Your task to perform on an android device: turn off smart reply in the gmail app Image 0: 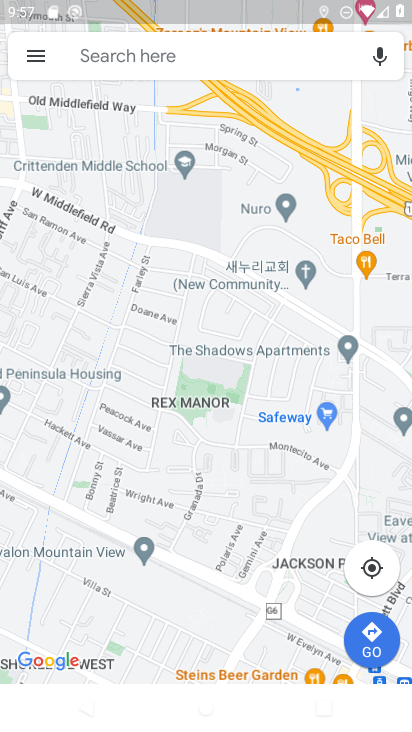
Step 0: press home button
Your task to perform on an android device: turn off smart reply in the gmail app Image 1: 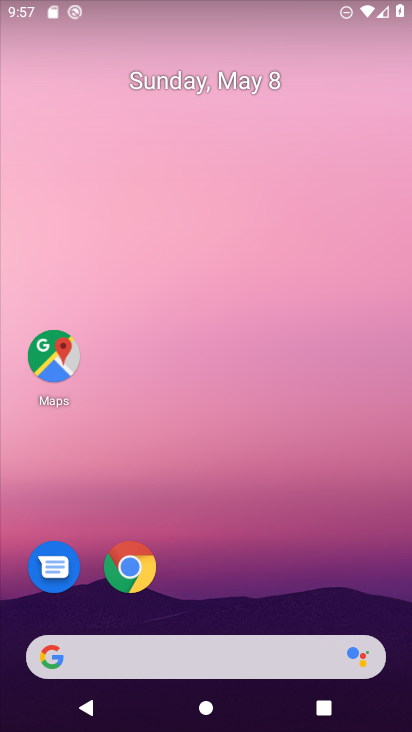
Step 1: drag from (158, 634) to (243, 225)
Your task to perform on an android device: turn off smart reply in the gmail app Image 2: 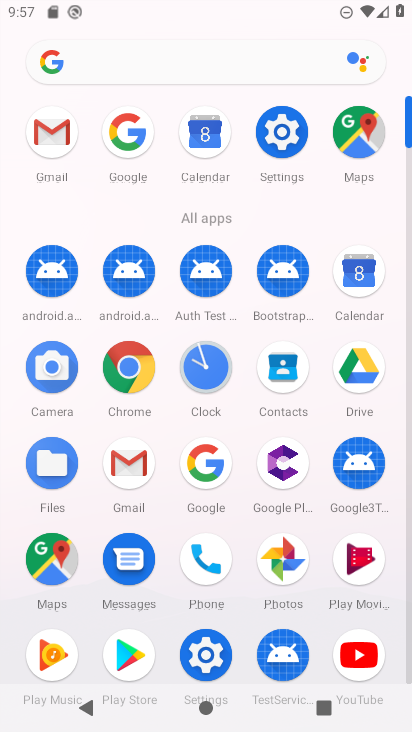
Step 2: click (56, 140)
Your task to perform on an android device: turn off smart reply in the gmail app Image 3: 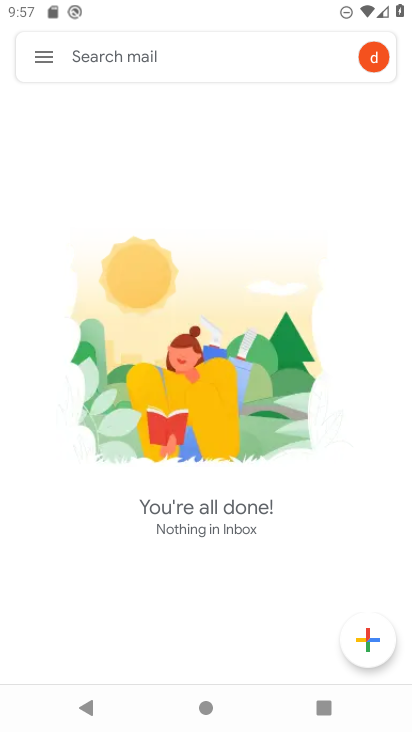
Step 3: click (38, 68)
Your task to perform on an android device: turn off smart reply in the gmail app Image 4: 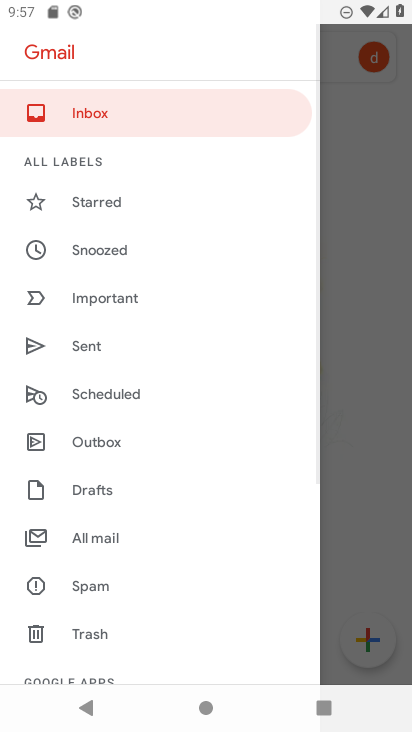
Step 4: drag from (97, 682) to (116, 267)
Your task to perform on an android device: turn off smart reply in the gmail app Image 5: 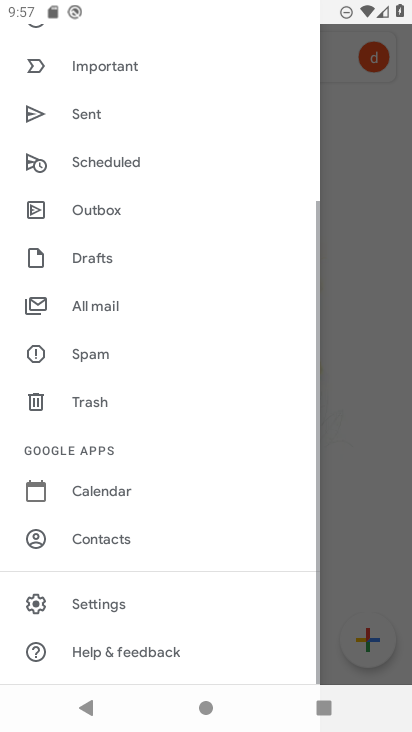
Step 5: click (116, 607)
Your task to perform on an android device: turn off smart reply in the gmail app Image 6: 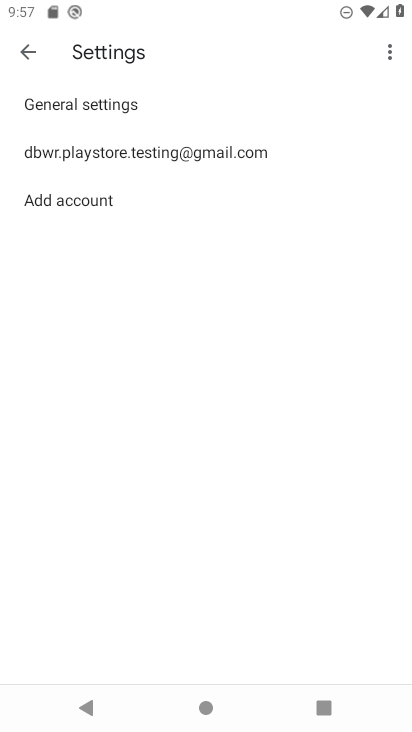
Step 6: click (72, 157)
Your task to perform on an android device: turn off smart reply in the gmail app Image 7: 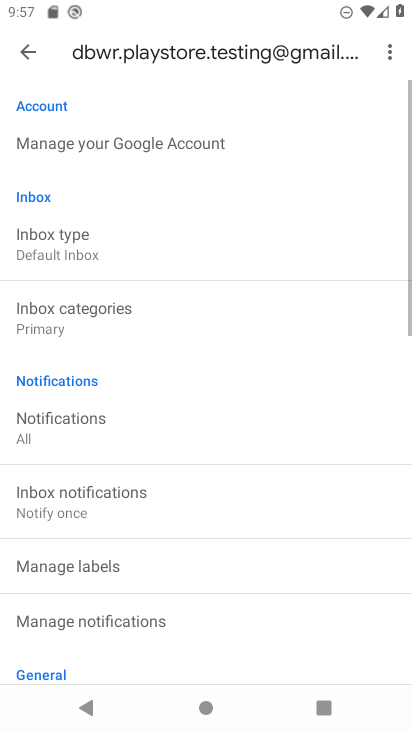
Step 7: drag from (205, 596) to (227, 268)
Your task to perform on an android device: turn off smart reply in the gmail app Image 8: 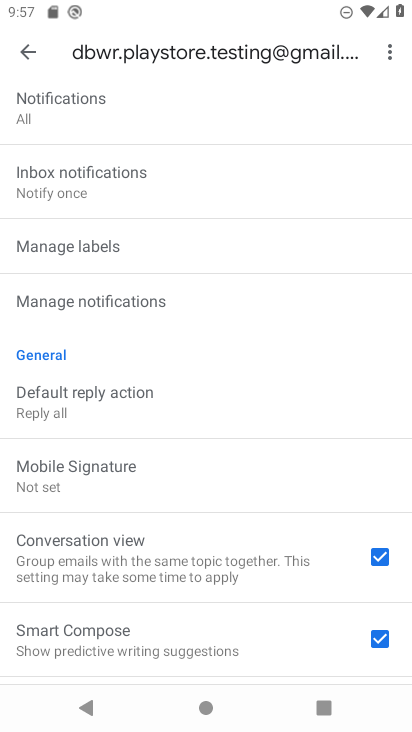
Step 8: drag from (204, 640) to (237, 255)
Your task to perform on an android device: turn off smart reply in the gmail app Image 9: 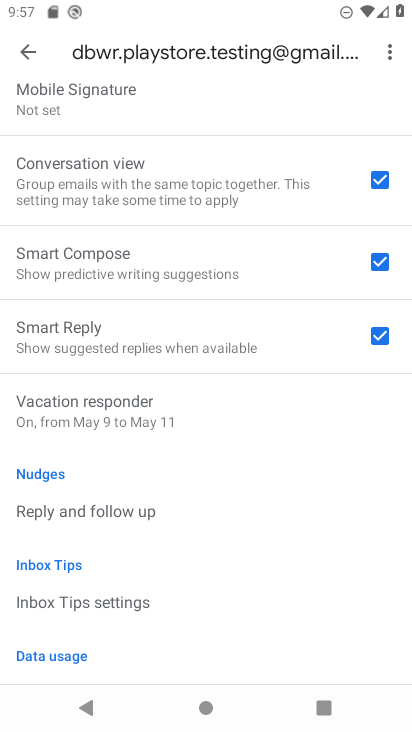
Step 9: click (382, 339)
Your task to perform on an android device: turn off smart reply in the gmail app Image 10: 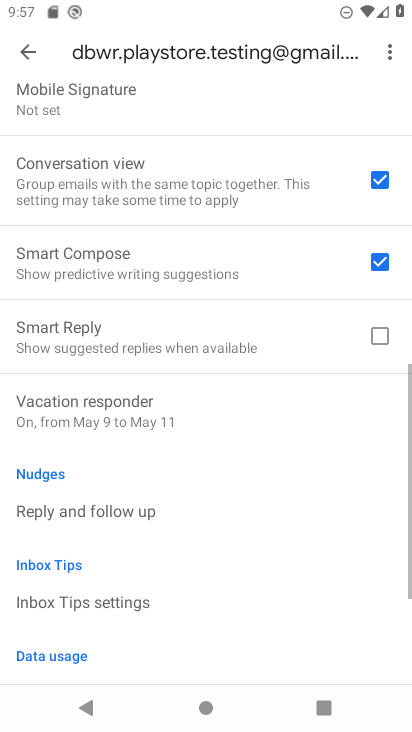
Step 10: task complete